Your task to perform on an android device: toggle location history Image 0: 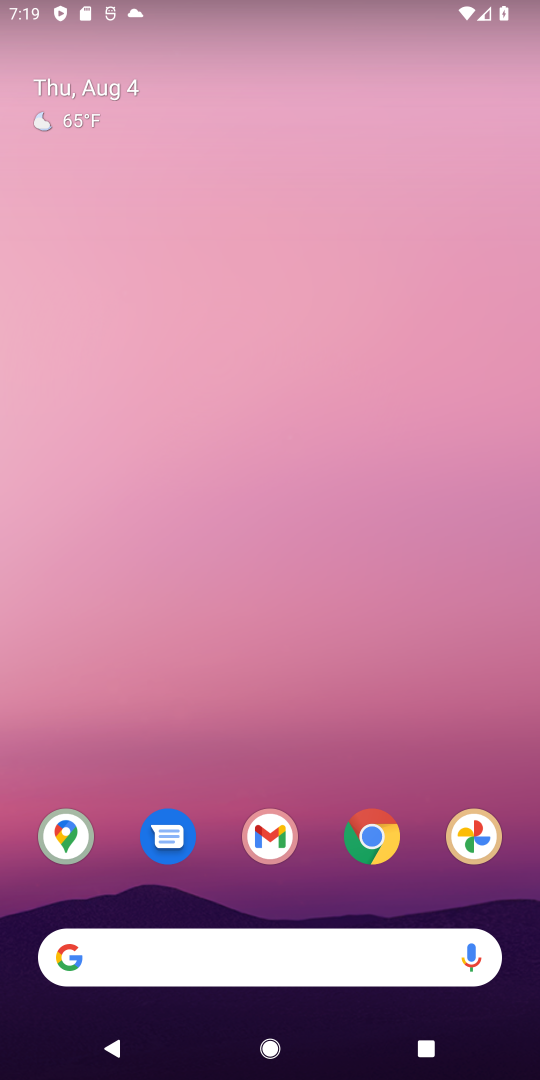
Step 0: drag from (200, 922) to (300, 34)
Your task to perform on an android device: toggle location history Image 1: 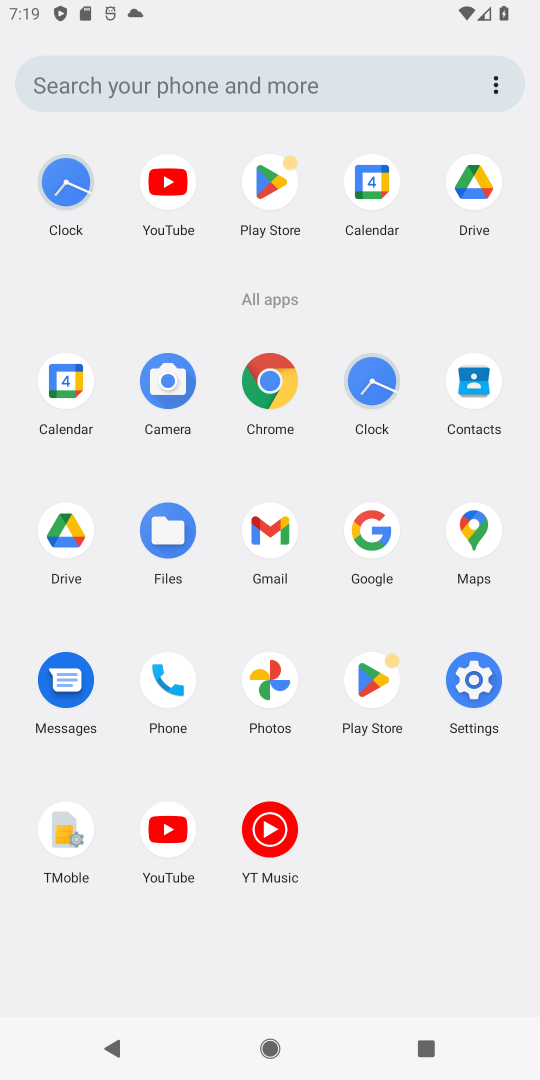
Step 1: click (468, 688)
Your task to perform on an android device: toggle location history Image 2: 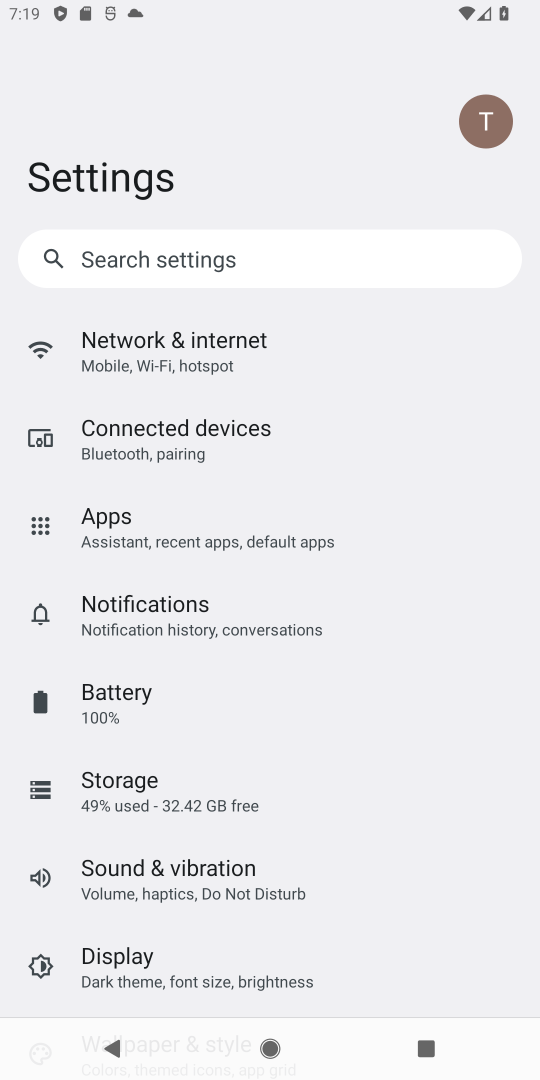
Step 2: drag from (142, 848) to (227, 81)
Your task to perform on an android device: toggle location history Image 3: 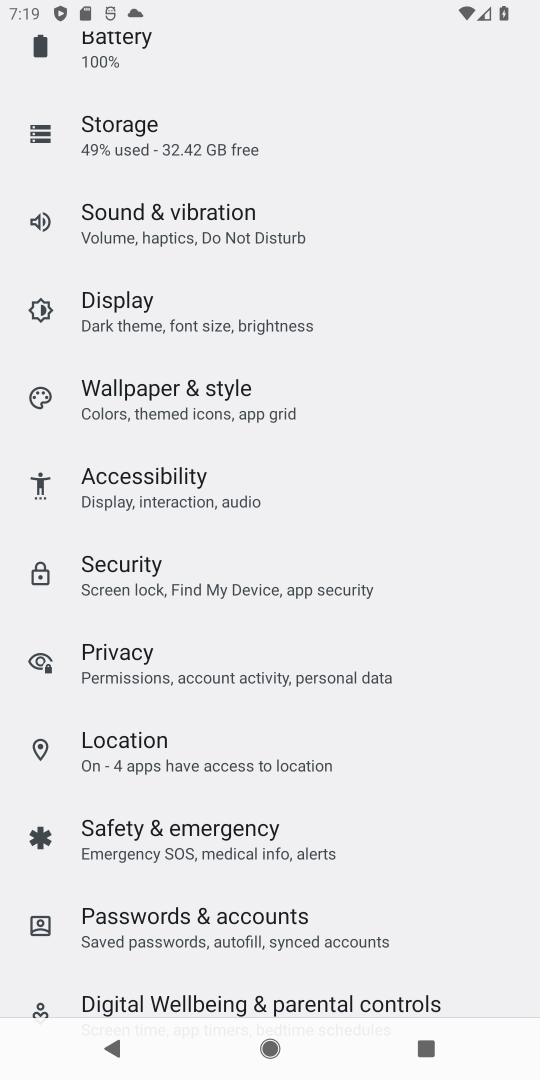
Step 3: click (129, 753)
Your task to perform on an android device: toggle location history Image 4: 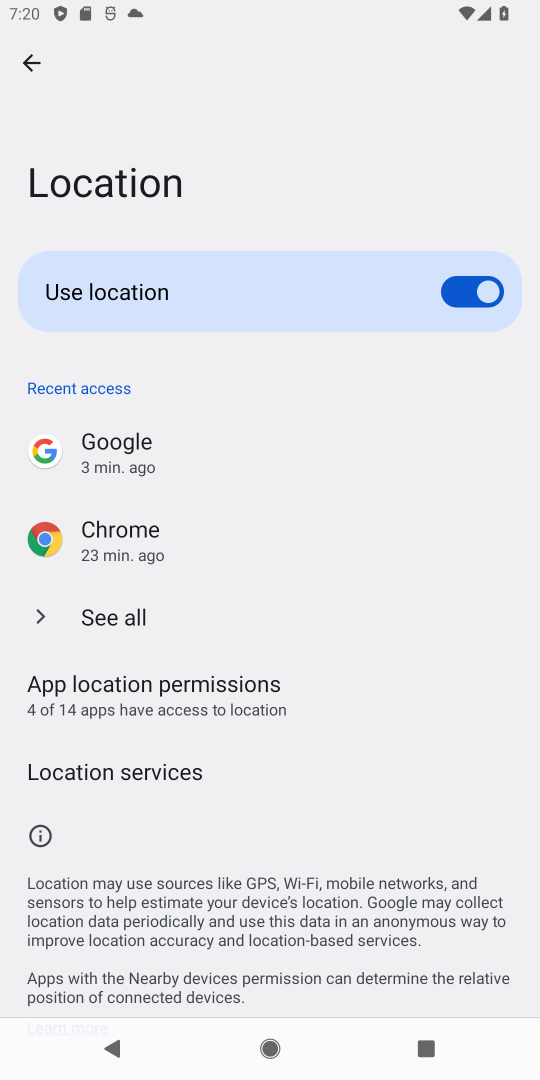
Step 4: click (124, 770)
Your task to perform on an android device: toggle location history Image 5: 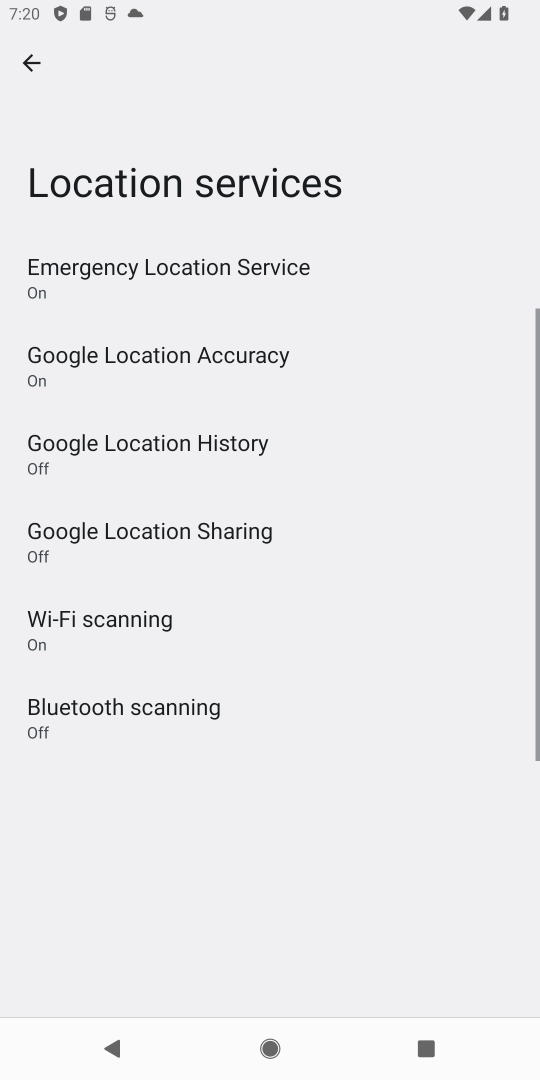
Step 5: click (198, 449)
Your task to perform on an android device: toggle location history Image 6: 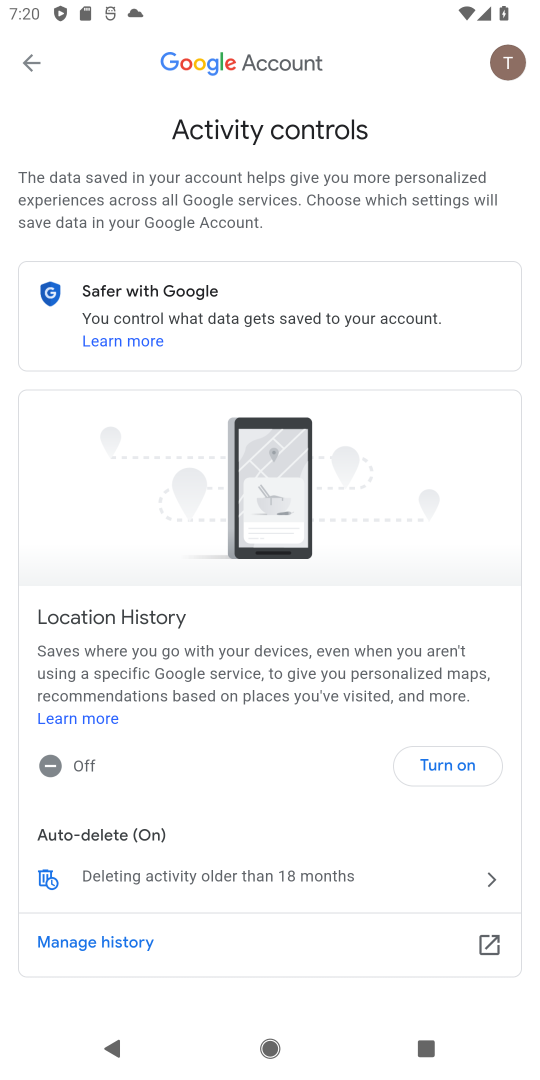
Step 6: click (437, 750)
Your task to perform on an android device: toggle location history Image 7: 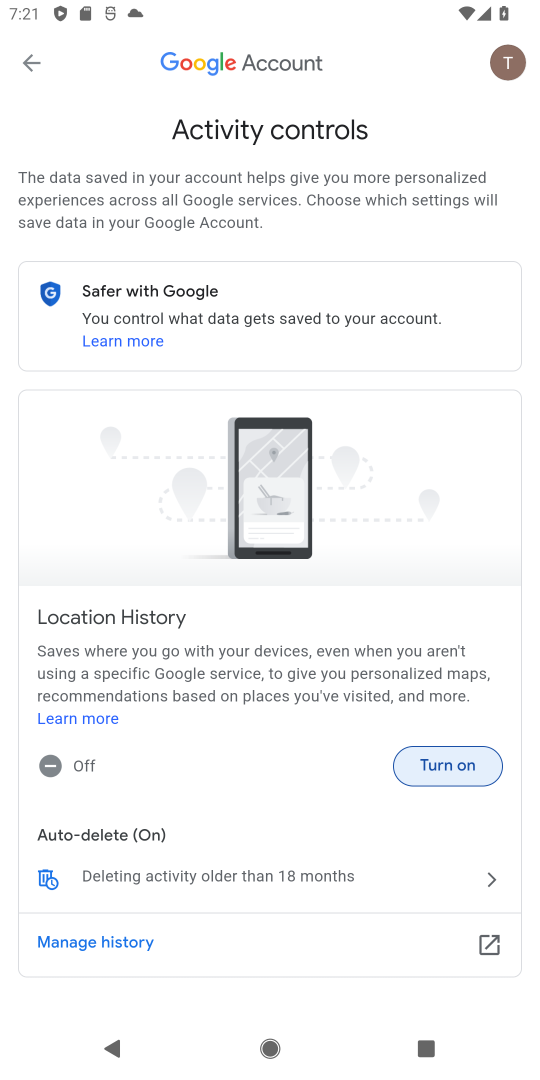
Step 7: click (426, 770)
Your task to perform on an android device: toggle location history Image 8: 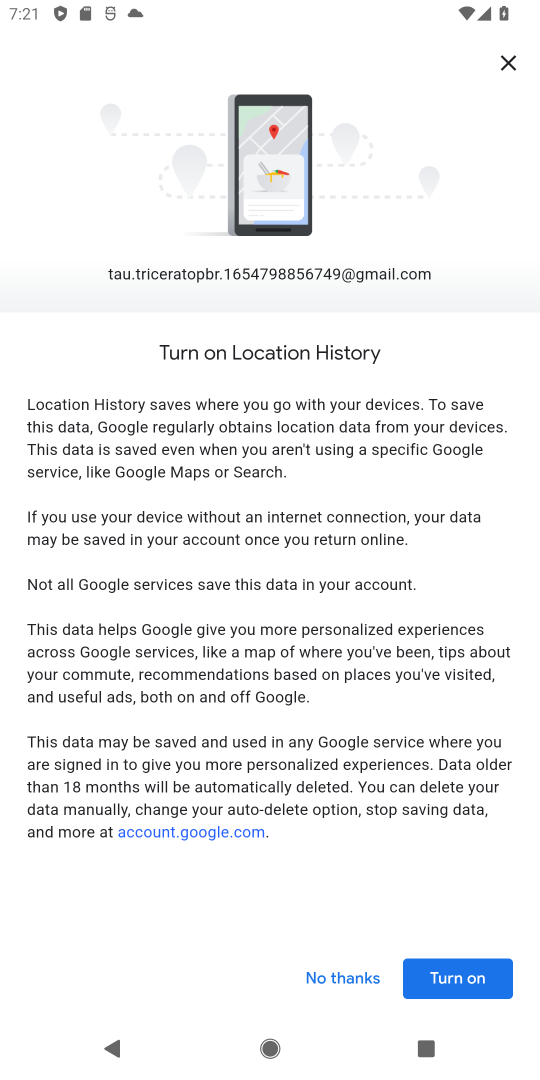
Step 8: click (482, 1003)
Your task to perform on an android device: toggle location history Image 9: 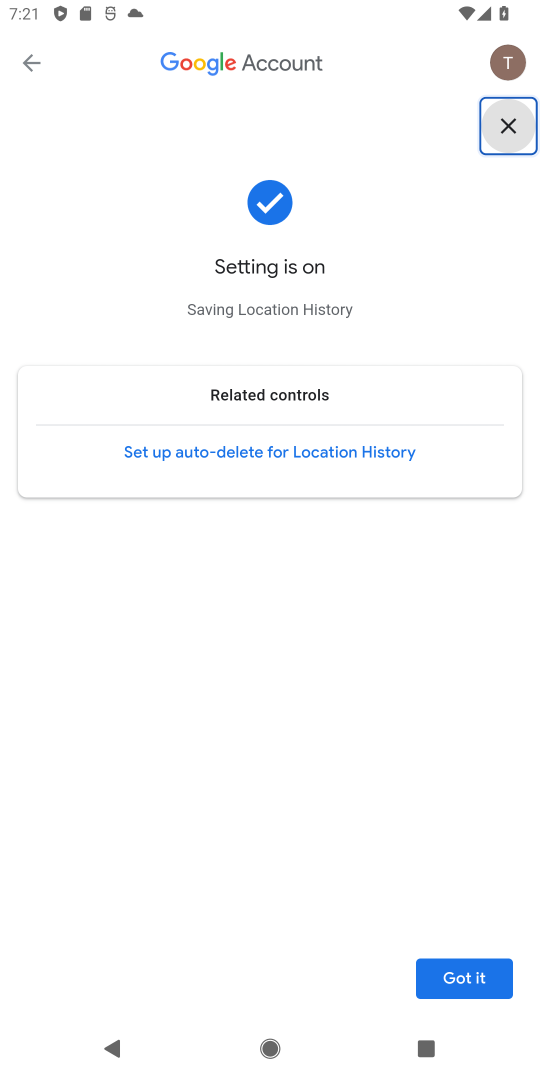
Step 9: task complete